Your task to perform on an android device: turn off sleep mode Image 0: 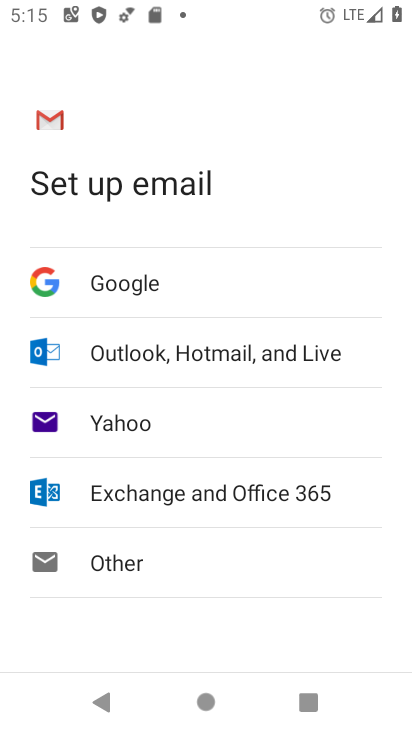
Step 0: press home button
Your task to perform on an android device: turn off sleep mode Image 1: 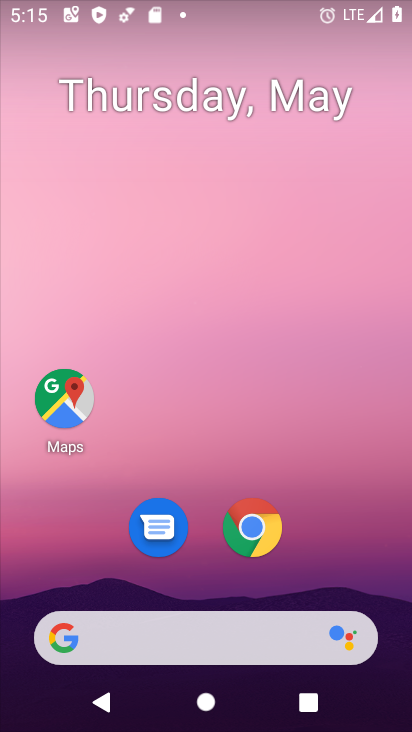
Step 1: drag from (355, 532) to (253, 30)
Your task to perform on an android device: turn off sleep mode Image 2: 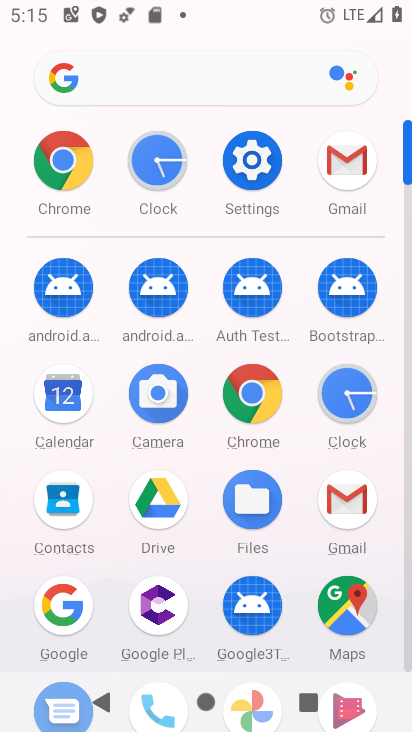
Step 2: click (244, 172)
Your task to perform on an android device: turn off sleep mode Image 3: 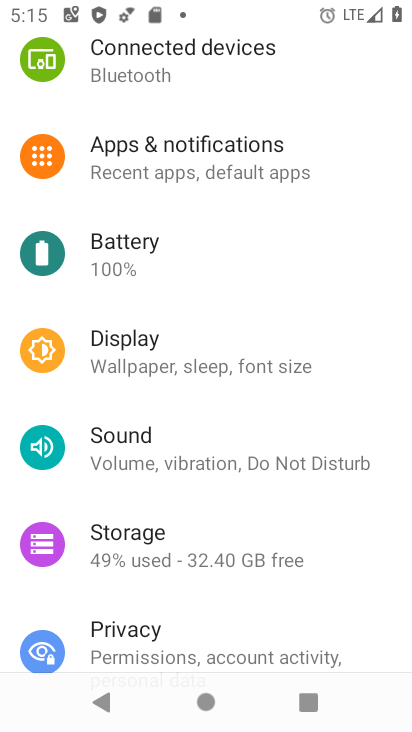
Step 3: drag from (244, 172) to (215, 532)
Your task to perform on an android device: turn off sleep mode Image 4: 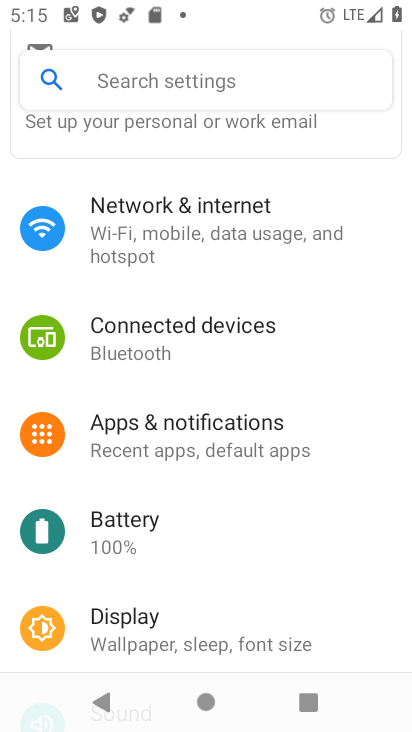
Step 4: drag from (299, 491) to (352, 123)
Your task to perform on an android device: turn off sleep mode Image 5: 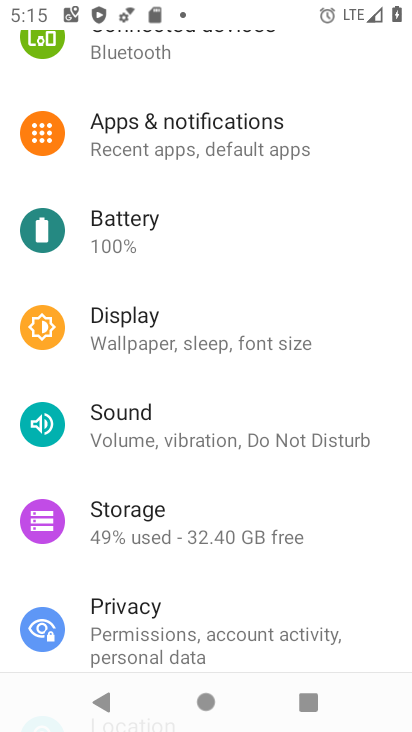
Step 5: click (174, 319)
Your task to perform on an android device: turn off sleep mode Image 6: 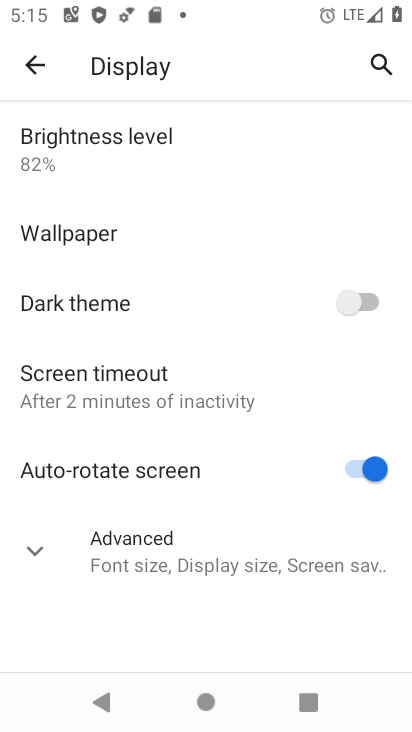
Step 6: click (149, 399)
Your task to perform on an android device: turn off sleep mode Image 7: 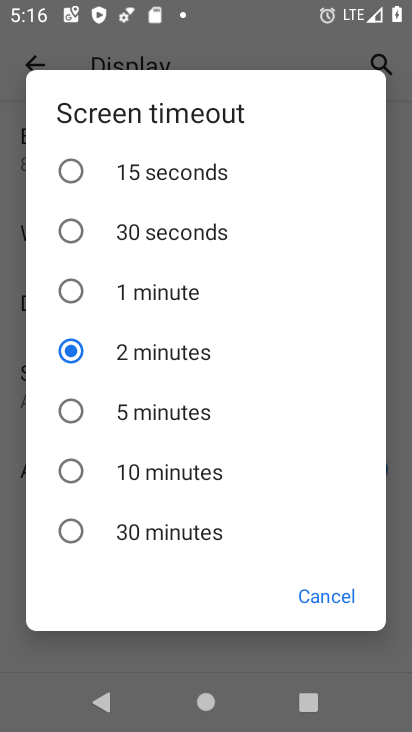
Step 7: task complete